Your task to perform on an android device: toggle javascript in the chrome app Image 0: 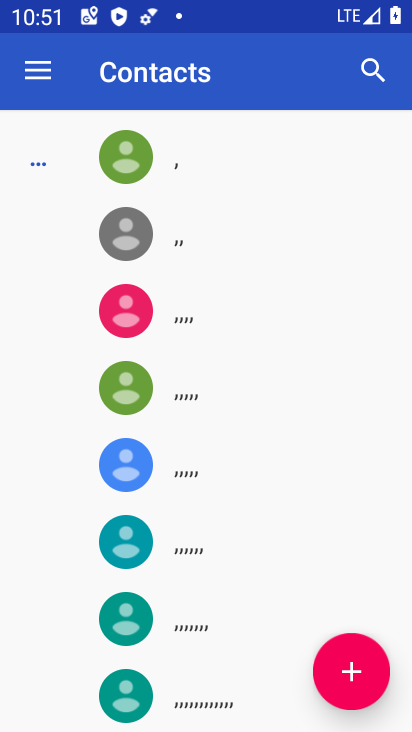
Step 0: press home button
Your task to perform on an android device: toggle javascript in the chrome app Image 1: 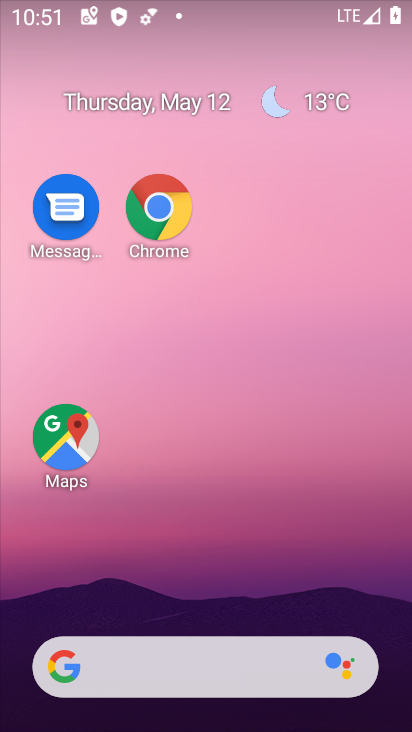
Step 1: click (162, 230)
Your task to perform on an android device: toggle javascript in the chrome app Image 2: 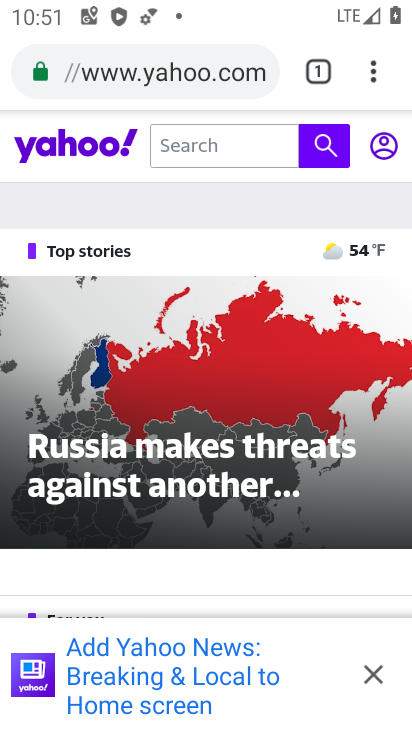
Step 2: click (380, 77)
Your task to perform on an android device: toggle javascript in the chrome app Image 3: 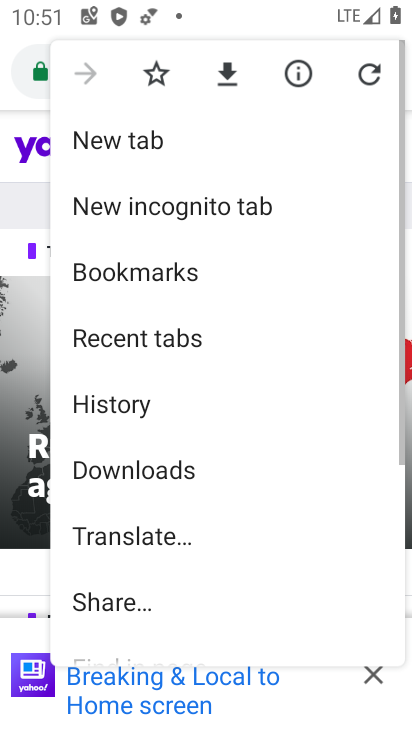
Step 3: drag from (229, 542) to (222, 2)
Your task to perform on an android device: toggle javascript in the chrome app Image 4: 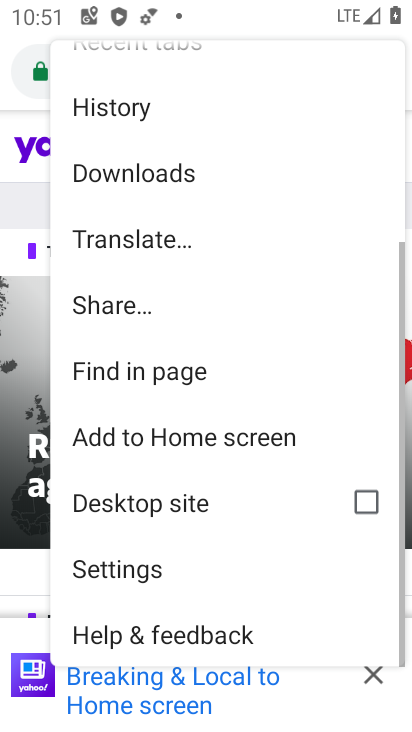
Step 4: click (147, 557)
Your task to perform on an android device: toggle javascript in the chrome app Image 5: 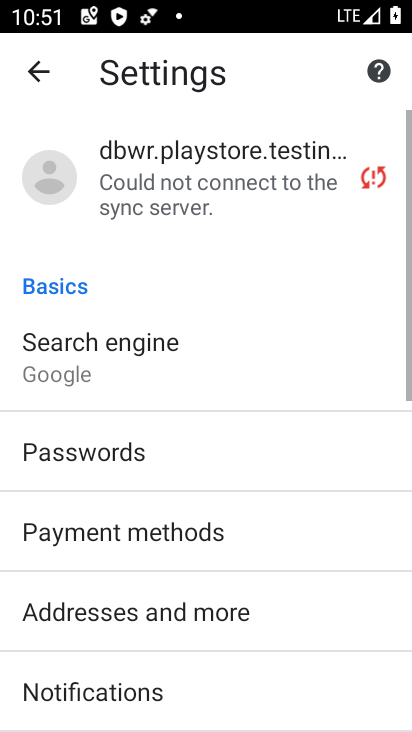
Step 5: drag from (182, 575) to (132, 48)
Your task to perform on an android device: toggle javascript in the chrome app Image 6: 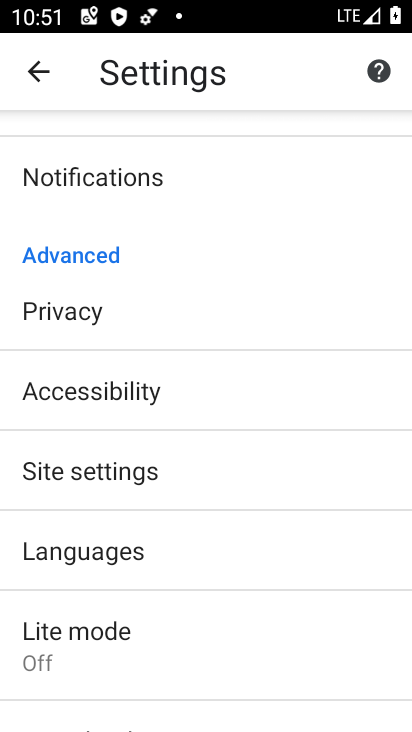
Step 6: drag from (138, 602) to (138, 266)
Your task to perform on an android device: toggle javascript in the chrome app Image 7: 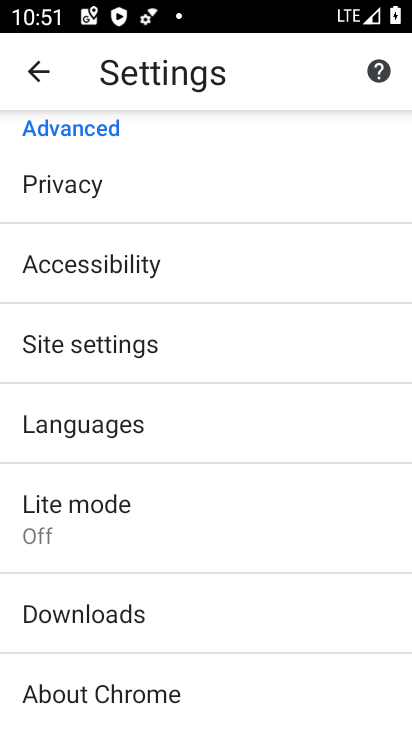
Step 7: click (89, 326)
Your task to perform on an android device: toggle javascript in the chrome app Image 8: 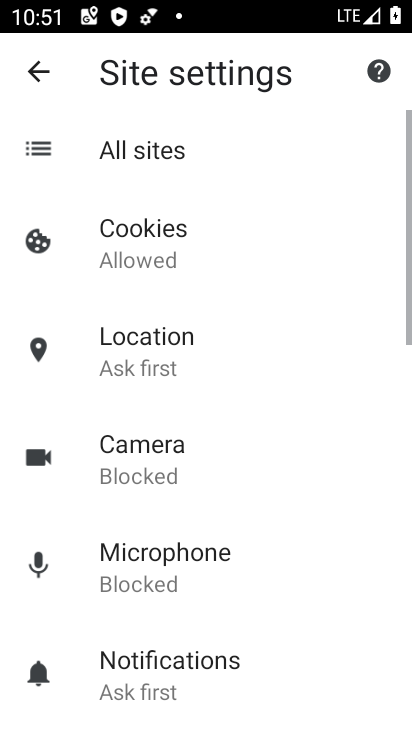
Step 8: drag from (247, 553) to (232, 127)
Your task to perform on an android device: toggle javascript in the chrome app Image 9: 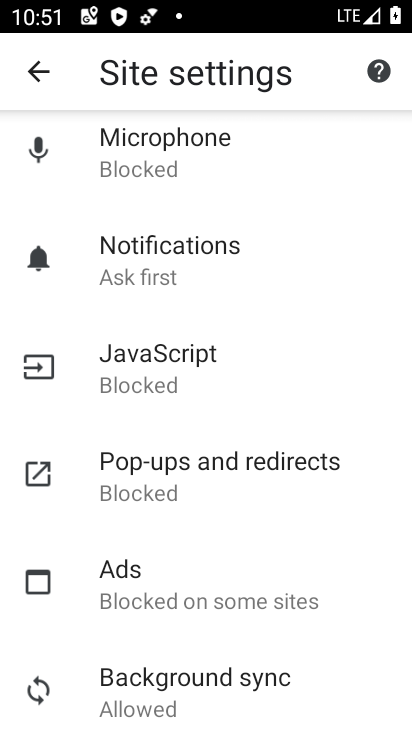
Step 9: click (184, 368)
Your task to perform on an android device: toggle javascript in the chrome app Image 10: 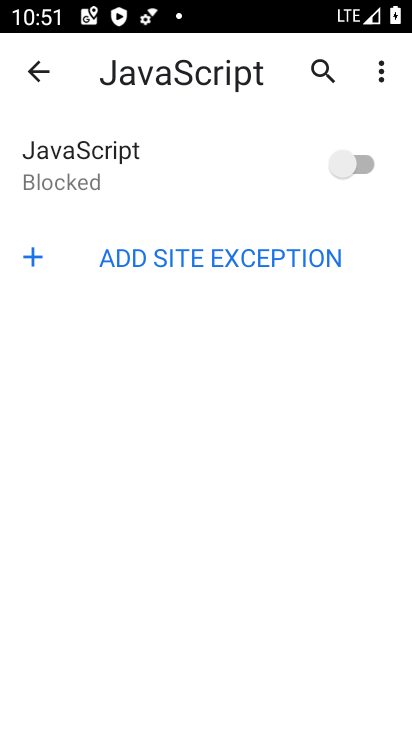
Step 10: click (358, 170)
Your task to perform on an android device: toggle javascript in the chrome app Image 11: 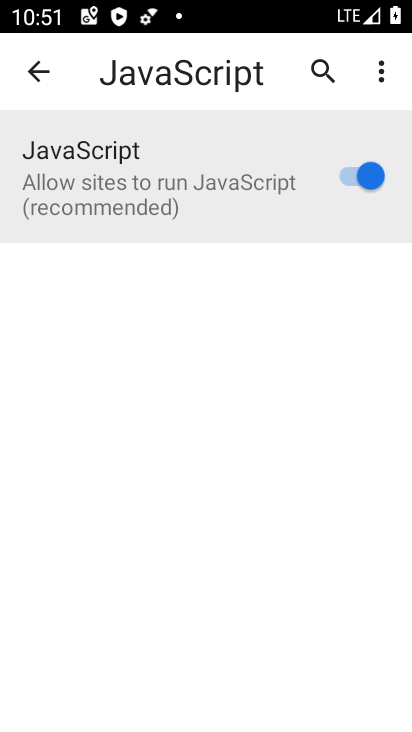
Step 11: task complete